Your task to perform on an android device: Go to settings Image 0: 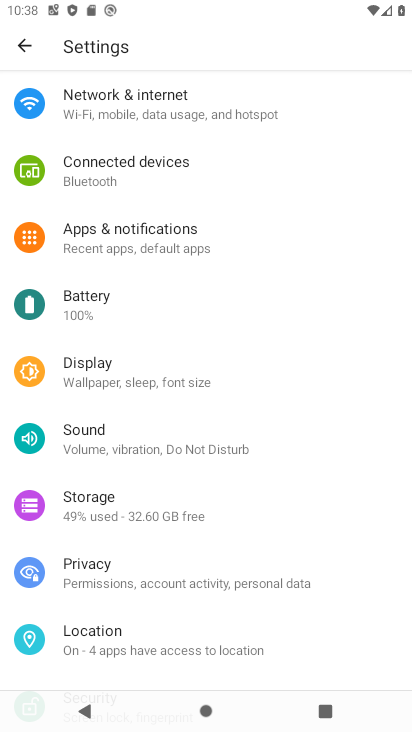
Step 0: task complete